Your task to perform on an android device: open a new tab in the chrome app Image 0: 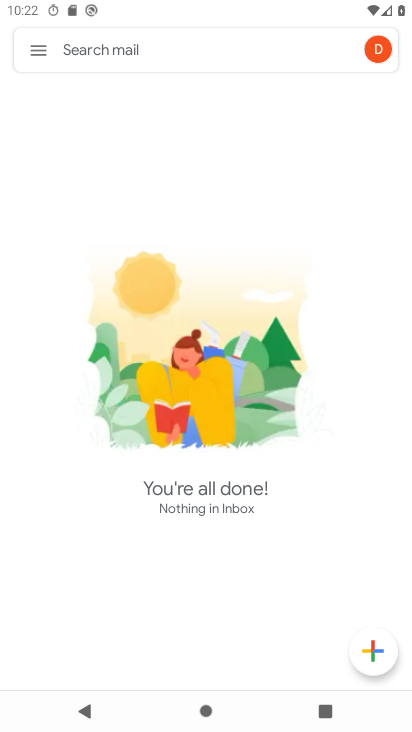
Step 0: press home button
Your task to perform on an android device: open a new tab in the chrome app Image 1: 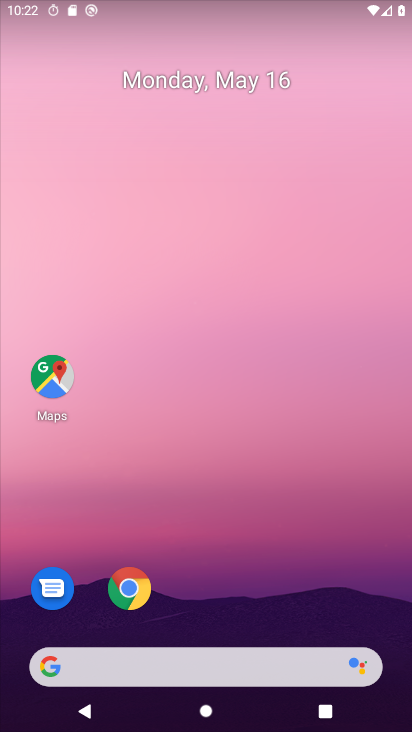
Step 1: click (133, 579)
Your task to perform on an android device: open a new tab in the chrome app Image 2: 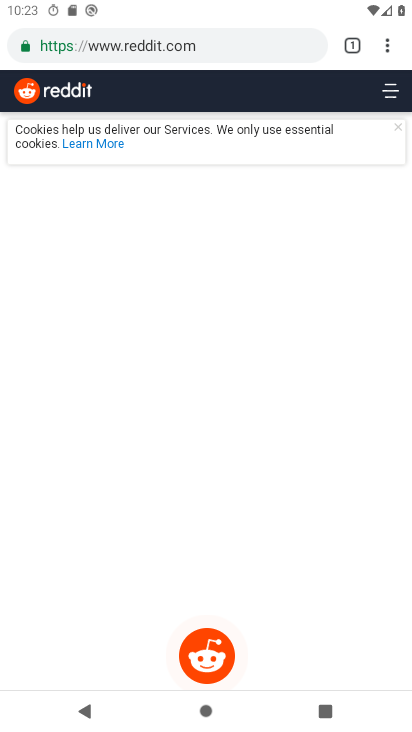
Step 2: click (343, 37)
Your task to perform on an android device: open a new tab in the chrome app Image 3: 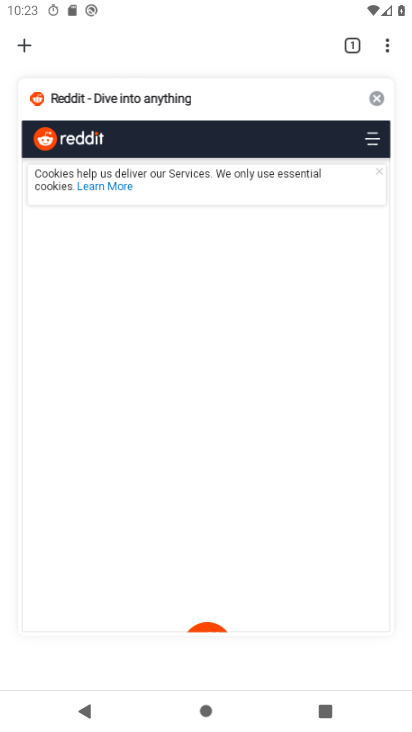
Step 3: click (24, 48)
Your task to perform on an android device: open a new tab in the chrome app Image 4: 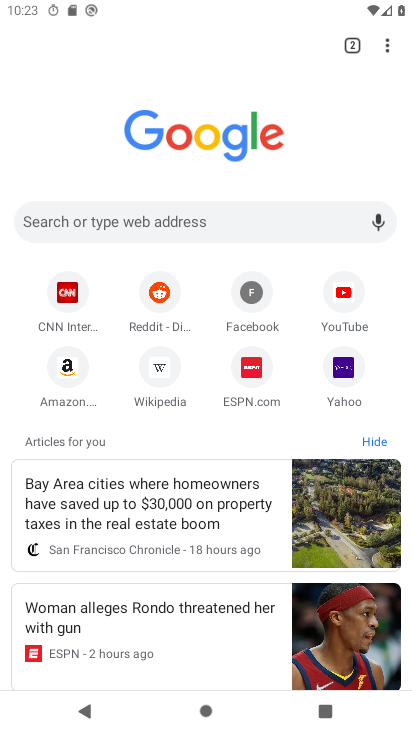
Step 4: task complete